Your task to perform on an android device: change alarm snooze length Image 0: 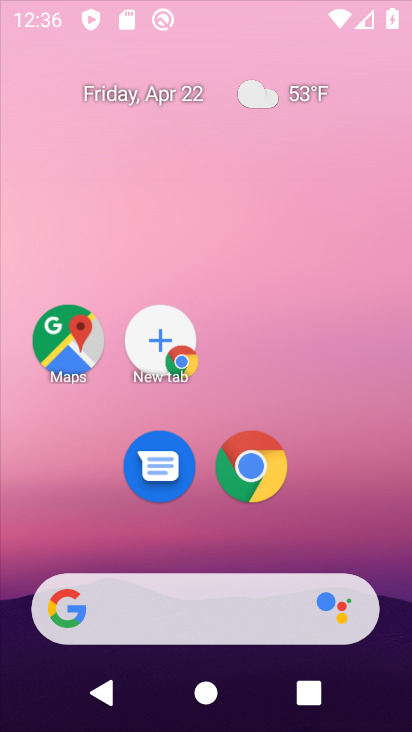
Step 0: click (294, 65)
Your task to perform on an android device: change alarm snooze length Image 1: 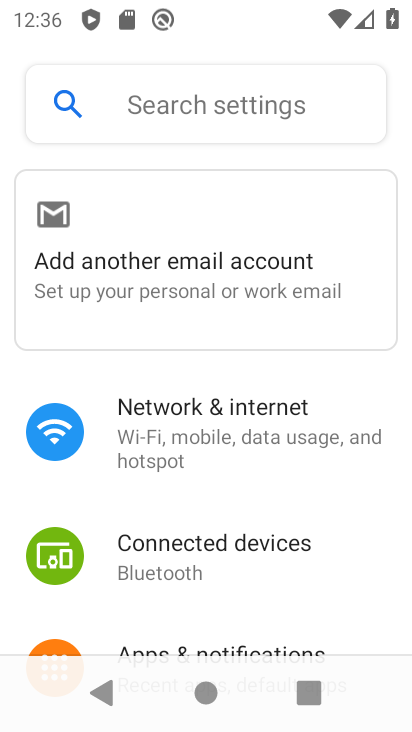
Step 1: drag from (347, 580) to (340, 296)
Your task to perform on an android device: change alarm snooze length Image 2: 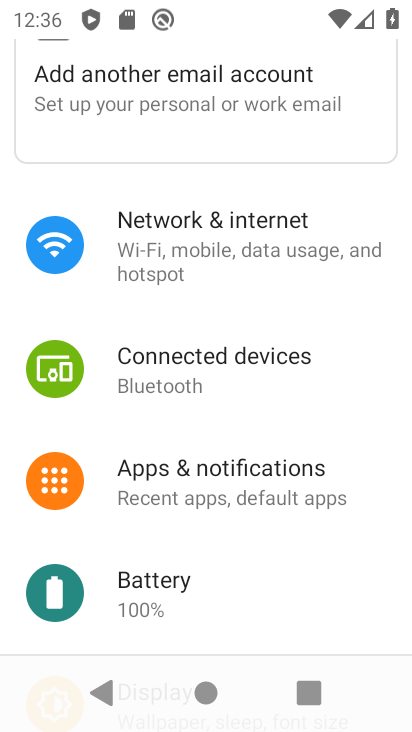
Step 2: press back button
Your task to perform on an android device: change alarm snooze length Image 3: 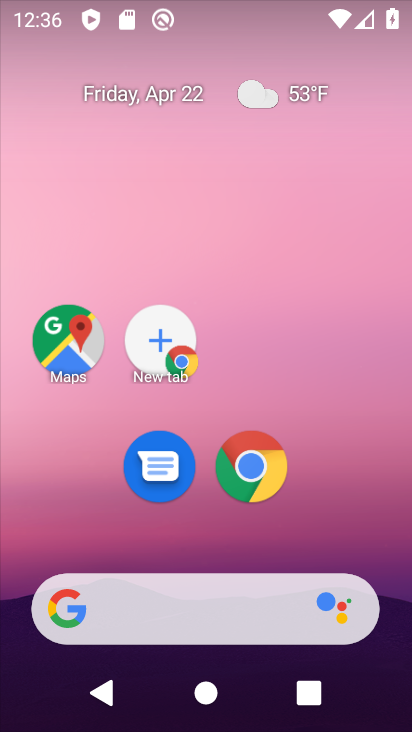
Step 3: drag from (336, 501) to (293, 20)
Your task to perform on an android device: change alarm snooze length Image 4: 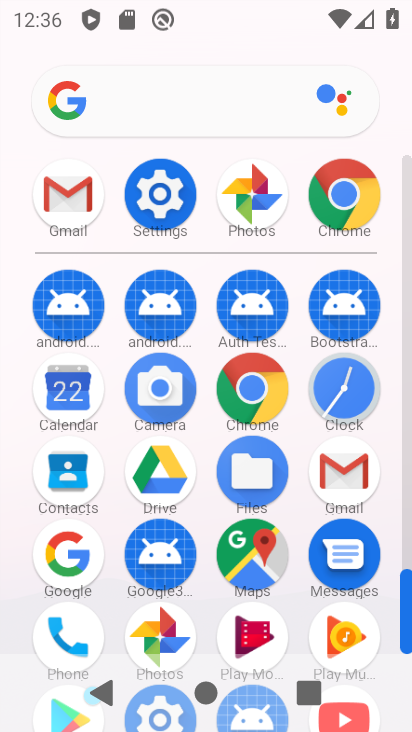
Step 4: drag from (19, 576) to (22, 274)
Your task to perform on an android device: change alarm snooze length Image 5: 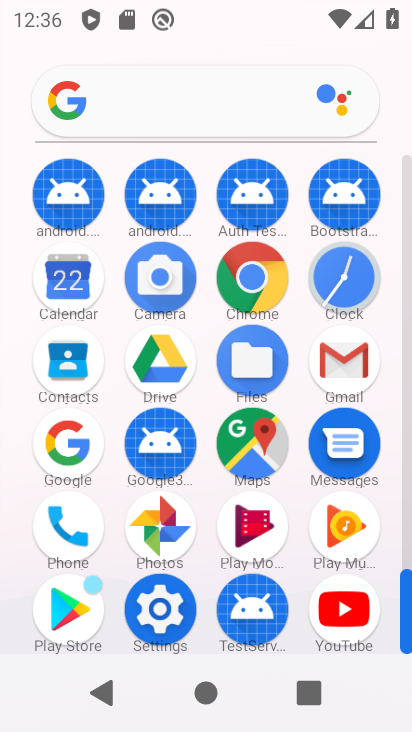
Step 5: drag from (26, 275) to (20, 443)
Your task to perform on an android device: change alarm snooze length Image 6: 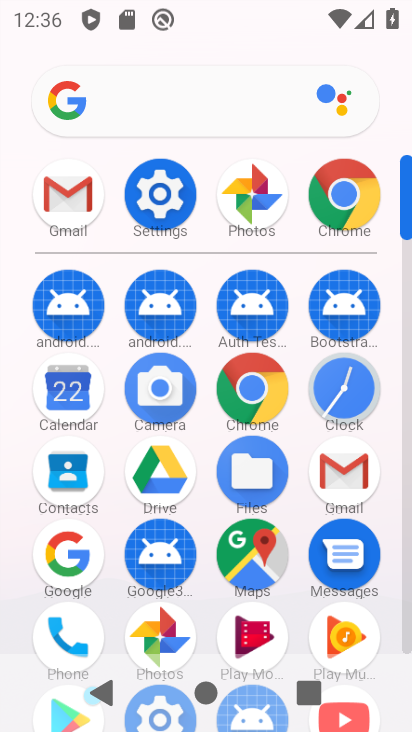
Step 6: click (348, 389)
Your task to perform on an android device: change alarm snooze length Image 7: 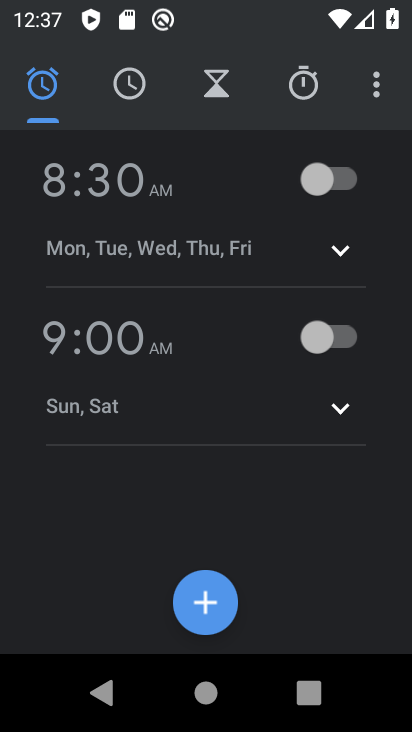
Step 7: drag from (374, 82) to (342, 133)
Your task to perform on an android device: change alarm snooze length Image 8: 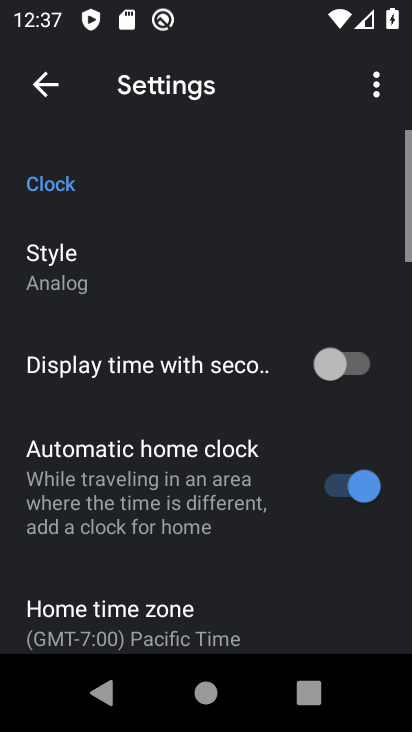
Step 8: drag from (148, 473) to (180, 258)
Your task to perform on an android device: change alarm snooze length Image 9: 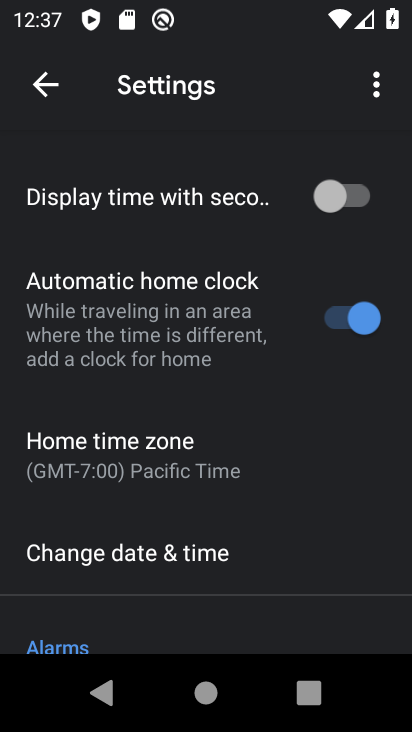
Step 9: drag from (159, 514) to (233, 143)
Your task to perform on an android device: change alarm snooze length Image 10: 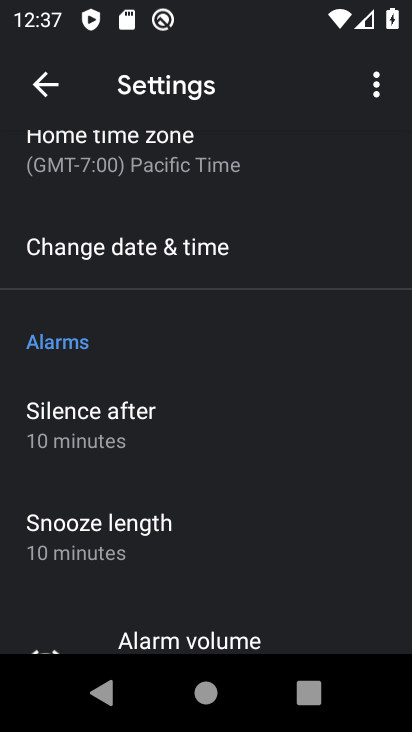
Step 10: click (145, 519)
Your task to perform on an android device: change alarm snooze length Image 11: 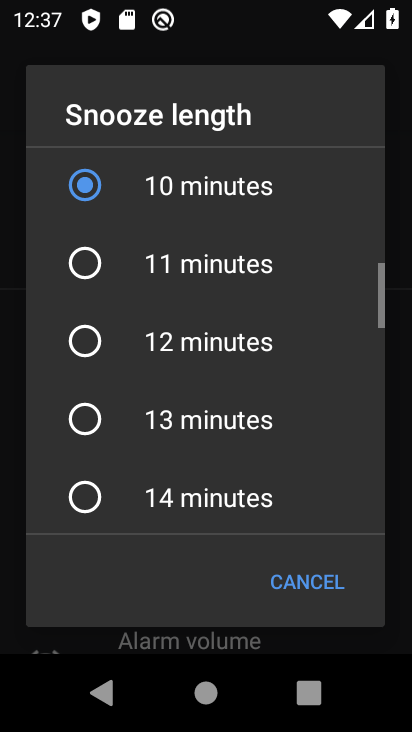
Step 11: click (177, 276)
Your task to perform on an android device: change alarm snooze length Image 12: 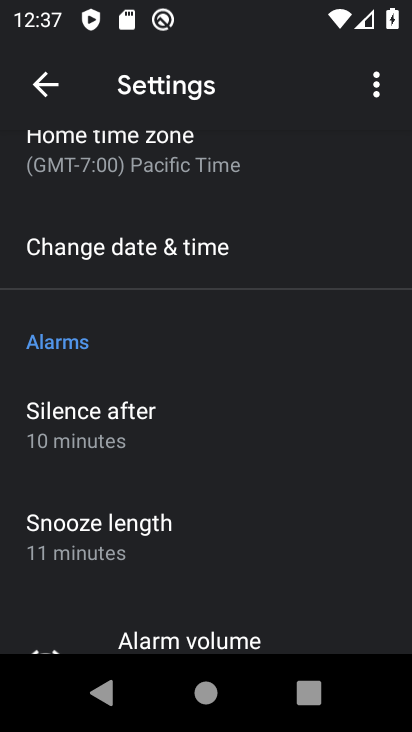
Step 12: task complete